Your task to perform on an android device: Open display settings Image 0: 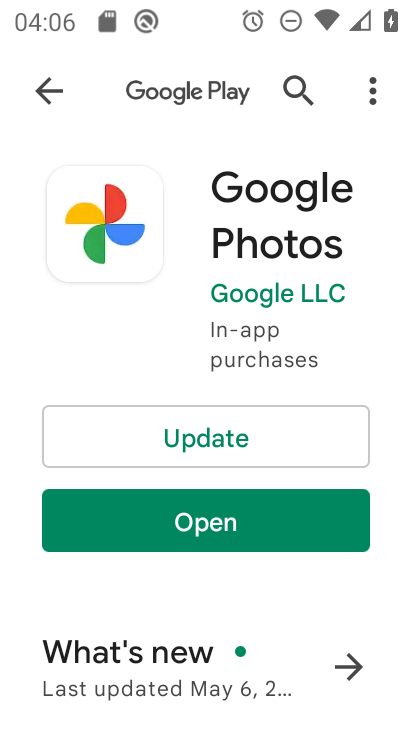
Step 0: press home button
Your task to perform on an android device: Open display settings Image 1: 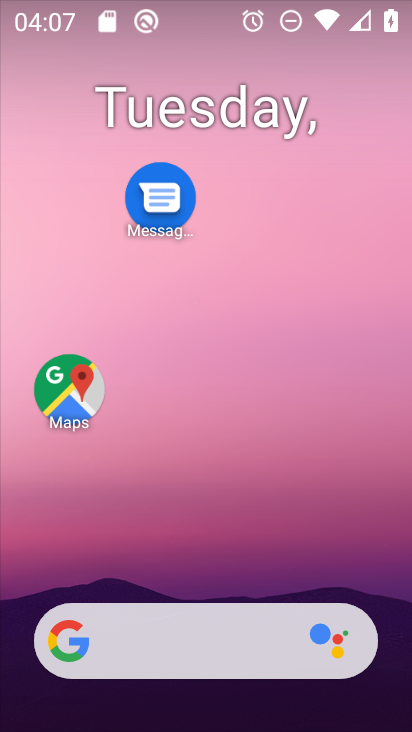
Step 1: drag from (232, 560) to (236, 225)
Your task to perform on an android device: Open display settings Image 2: 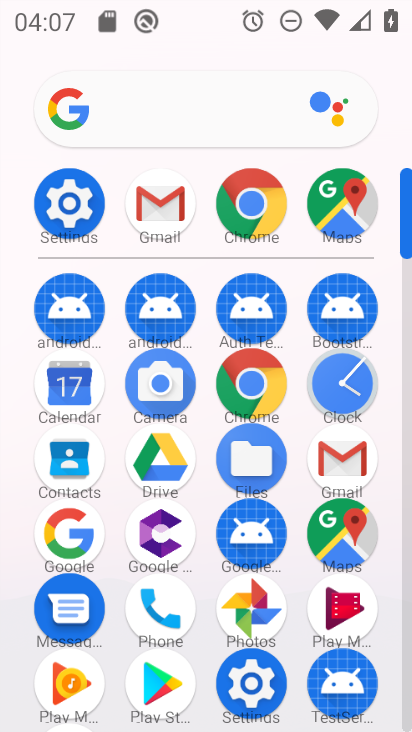
Step 2: click (71, 228)
Your task to perform on an android device: Open display settings Image 3: 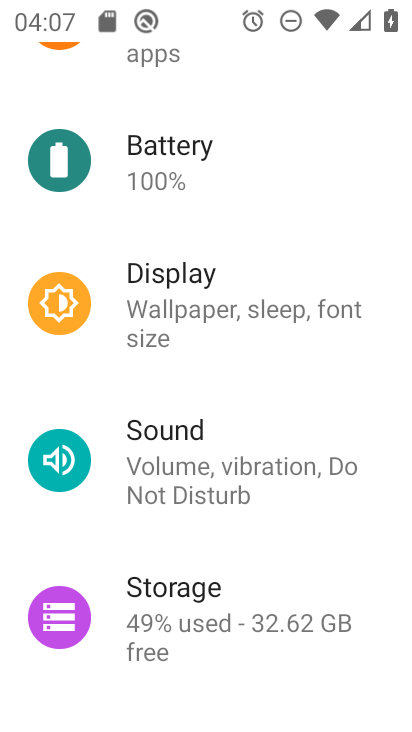
Step 3: click (204, 314)
Your task to perform on an android device: Open display settings Image 4: 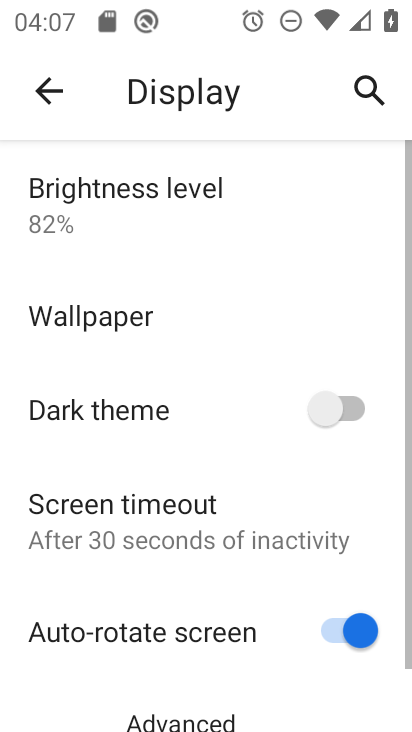
Step 4: task complete